Your task to perform on an android device: Open Yahoo.com Image 0: 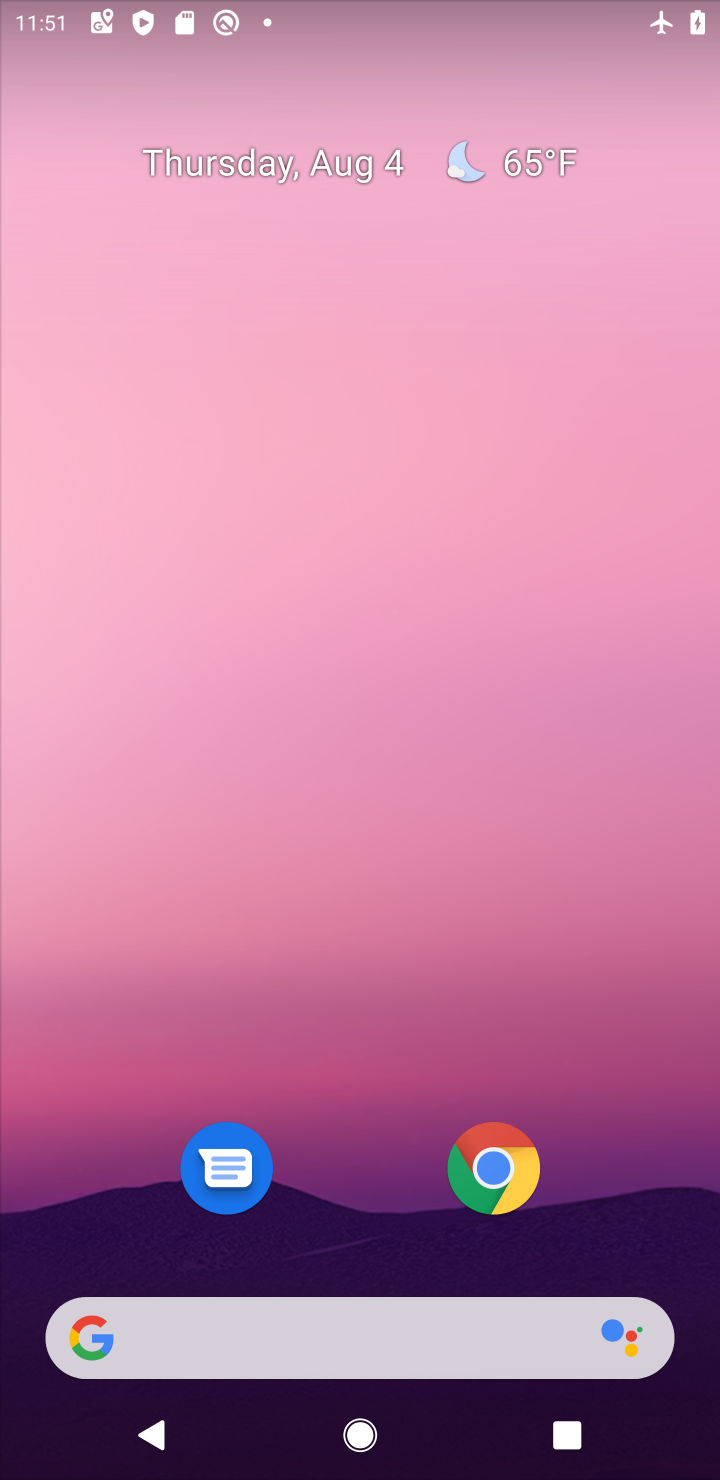
Step 0: drag from (321, 943) to (128, 73)
Your task to perform on an android device: Open Yahoo.com Image 1: 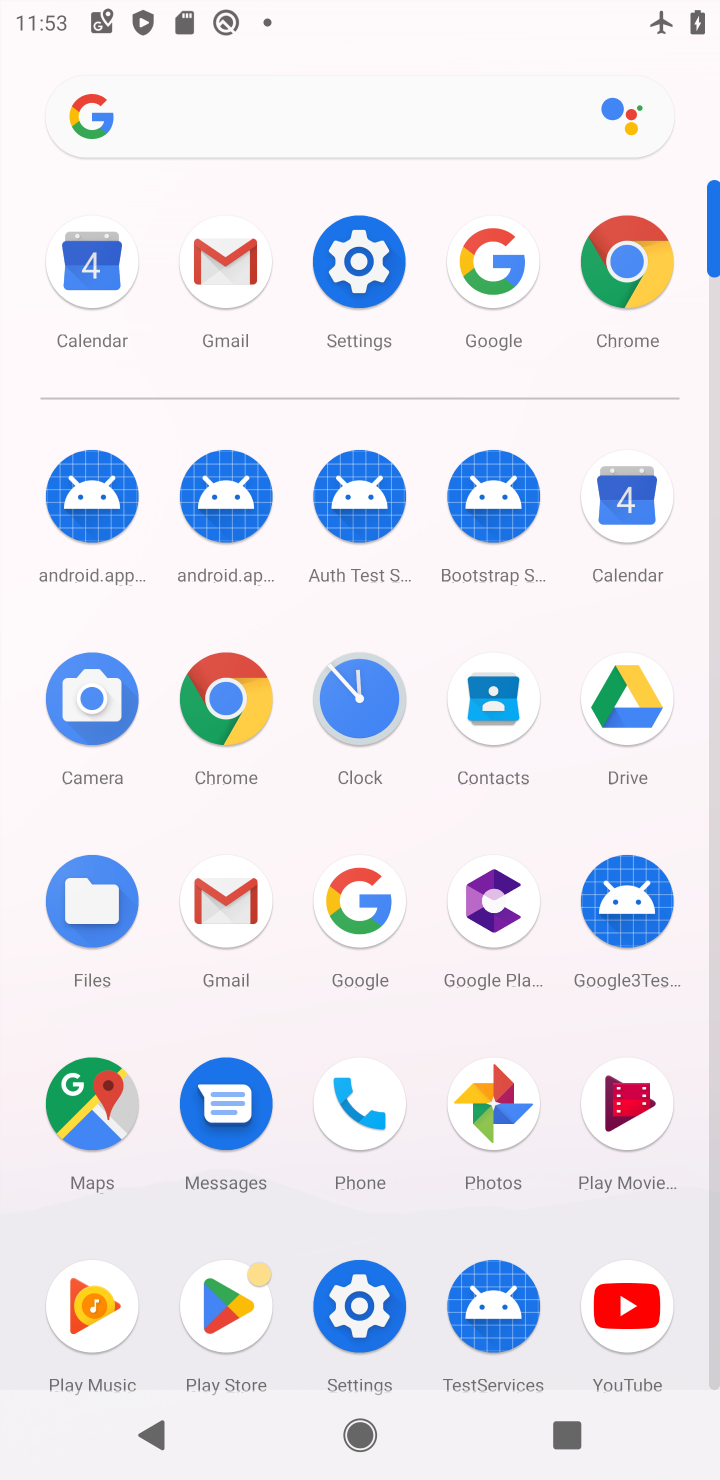
Step 1: click (362, 940)
Your task to perform on an android device: Open Yahoo.com Image 2: 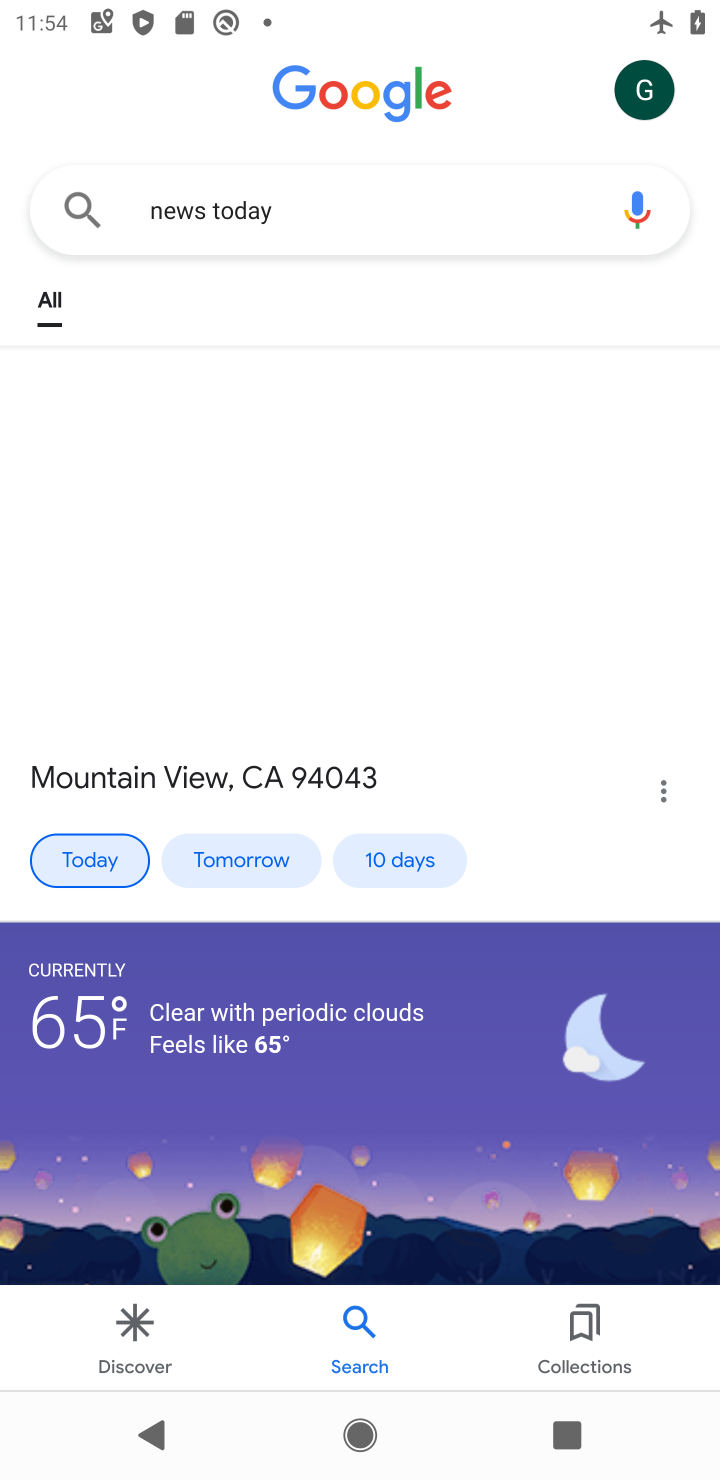
Step 2: press back button
Your task to perform on an android device: Open Yahoo.com Image 3: 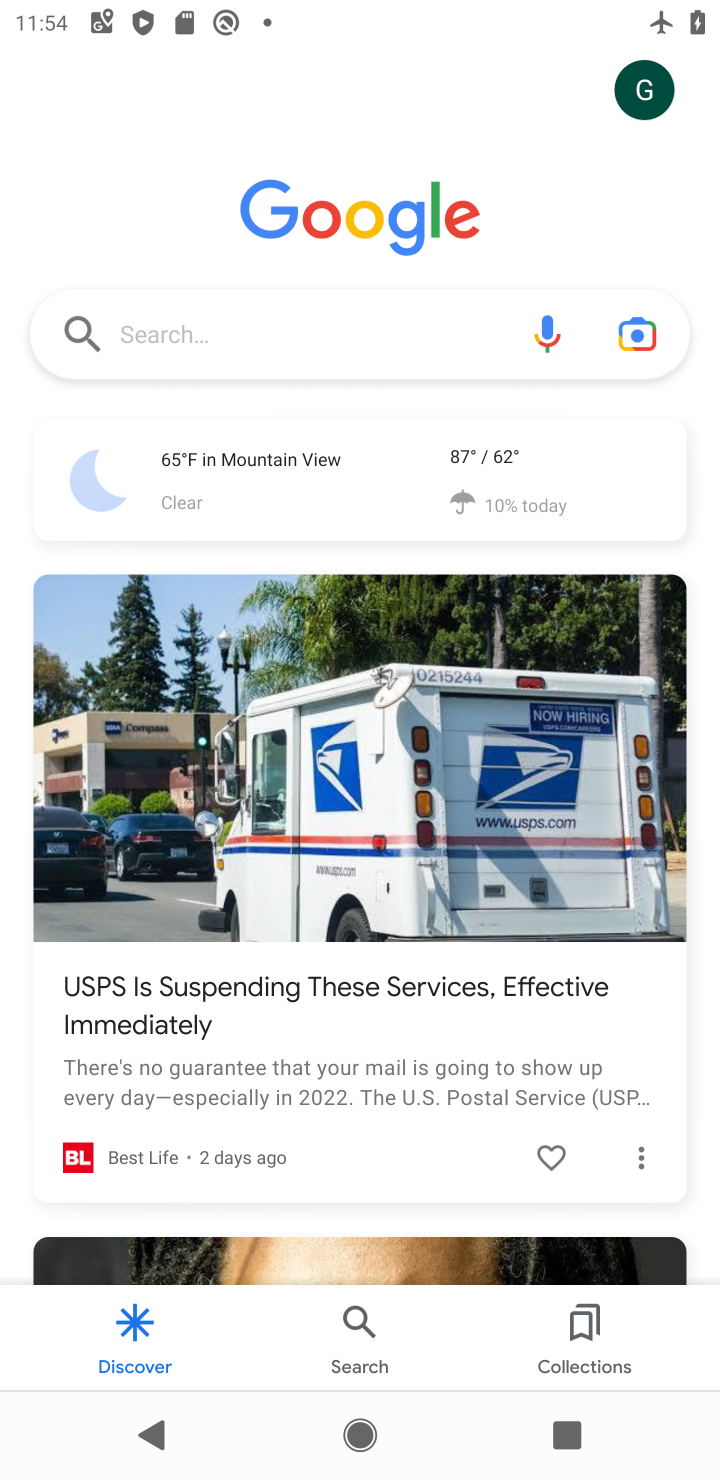
Step 3: click (195, 328)
Your task to perform on an android device: Open Yahoo.com Image 4: 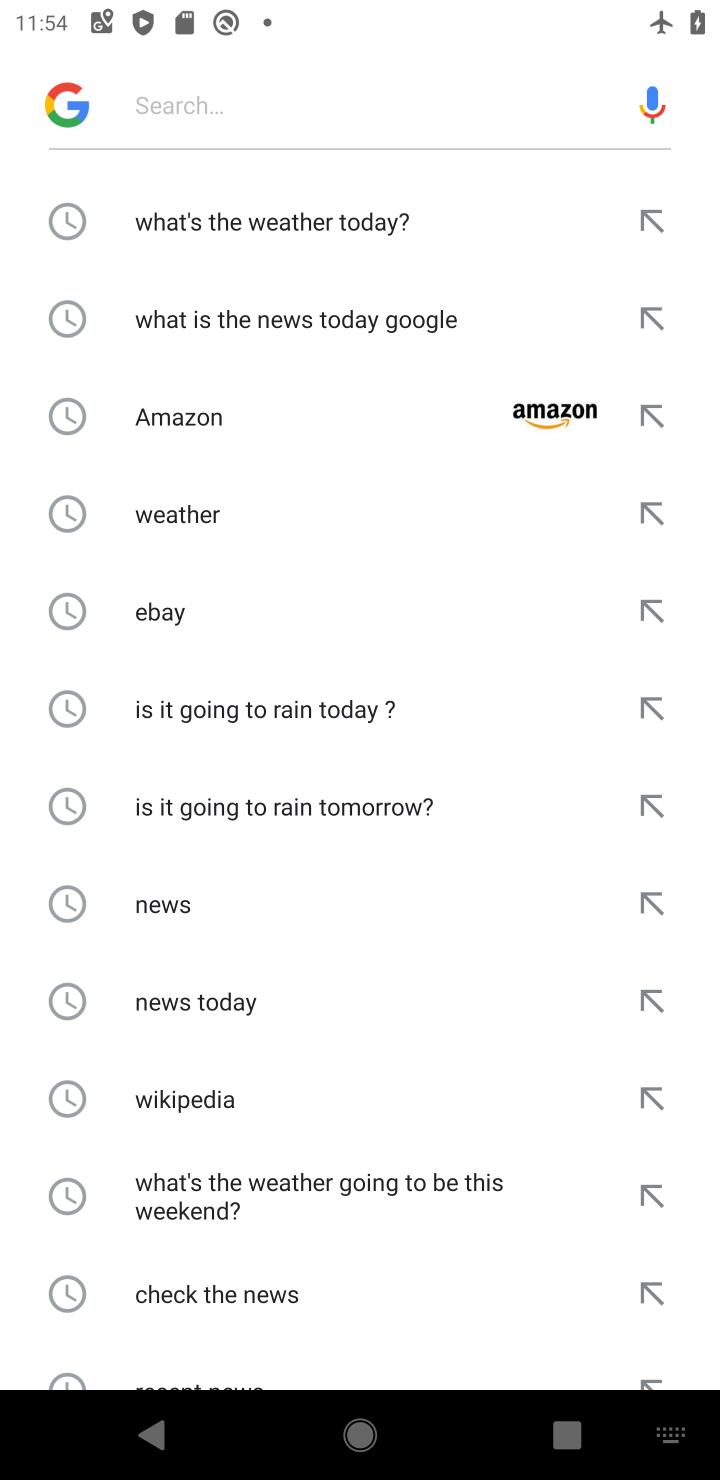
Step 4: type "Yahoo.com"
Your task to perform on an android device: Open Yahoo.com Image 5: 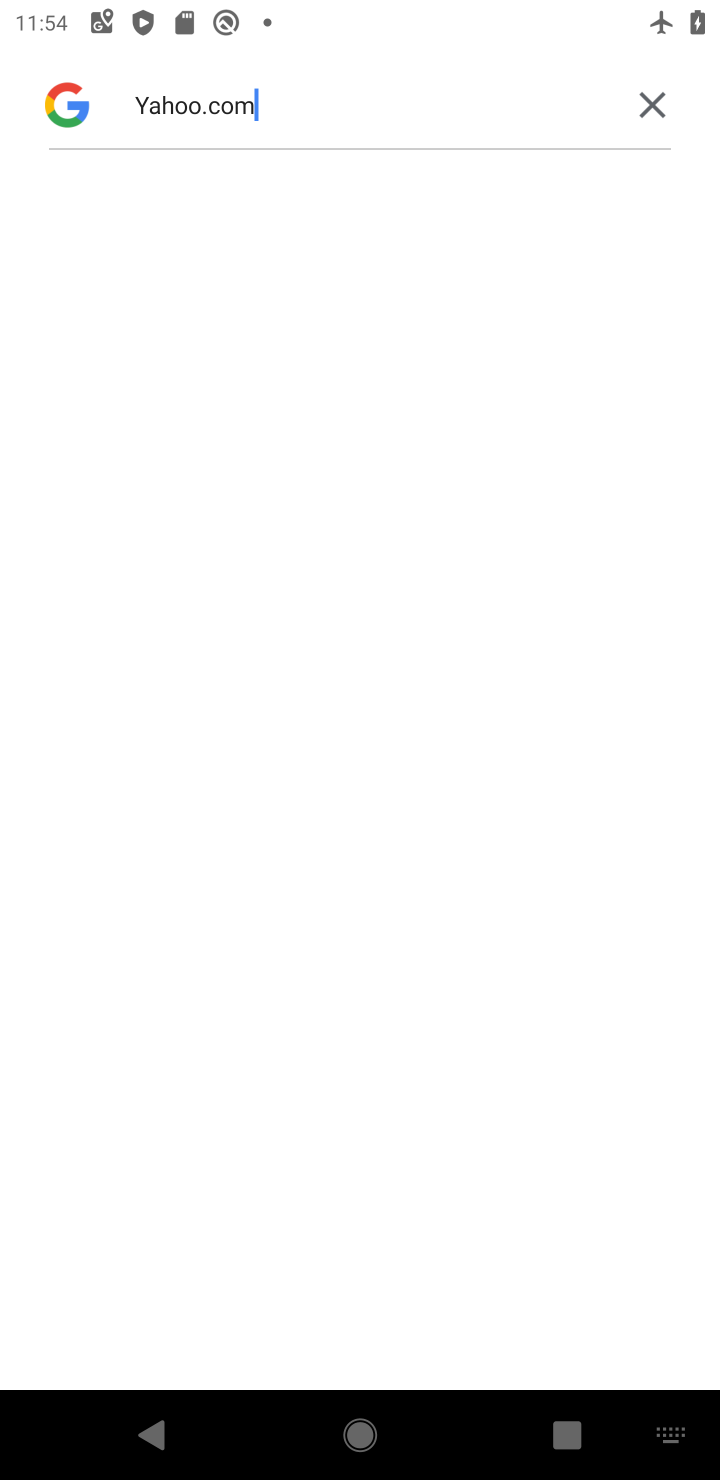
Step 5: task complete